Your task to perform on an android device: change keyboard looks Image 0: 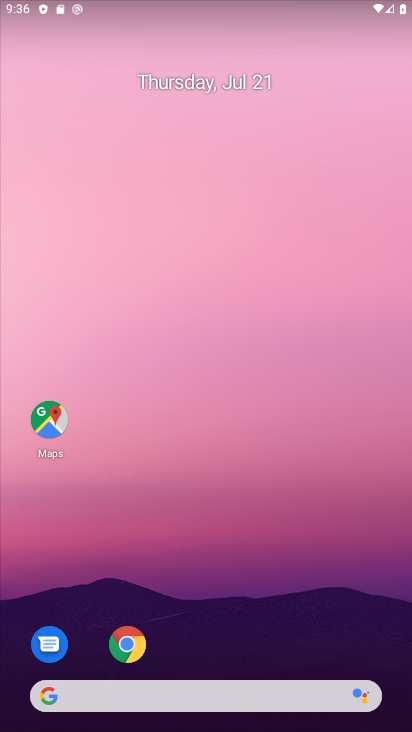
Step 0: drag from (290, 663) to (100, 72)
Your task to perform on an android device: change keyboard looks Image 1: 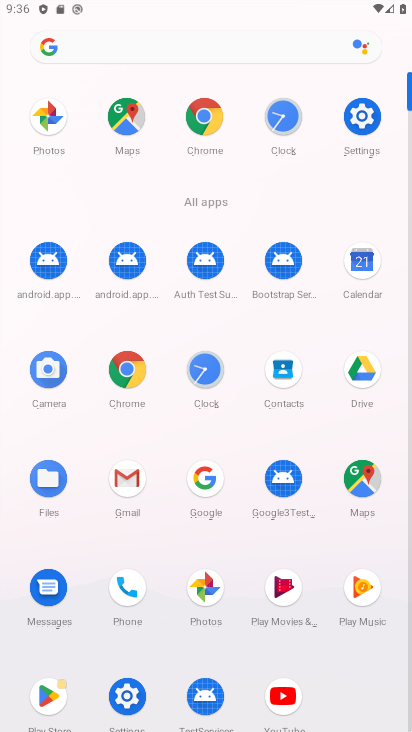
Step 1: click (375, 145)
Your task to perform on an android device: change keyboard looks Image 2: 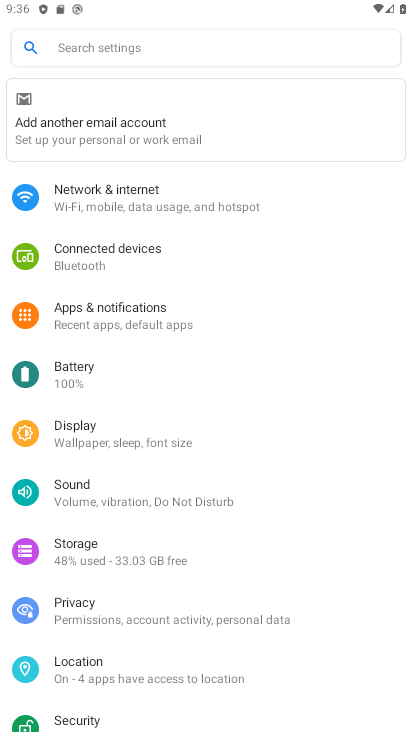
Step 2: drag from (187, 627) to (161, 58)
Your task to perform on an android device: change keyboard looks Image 3: 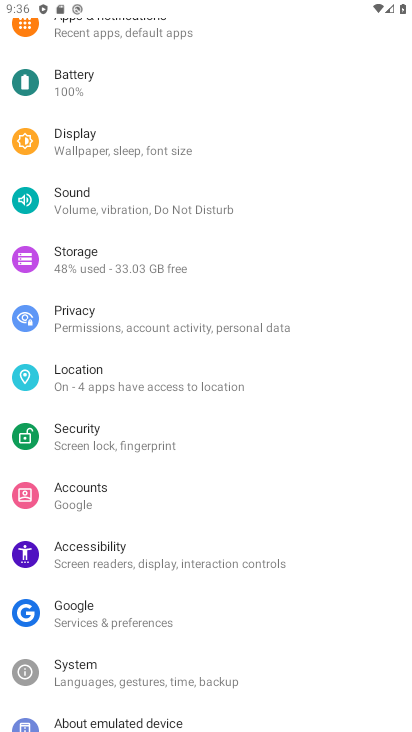
Step 3: click (233, 694)
Your task to perform on an android device: change keyboard looks Image 4: 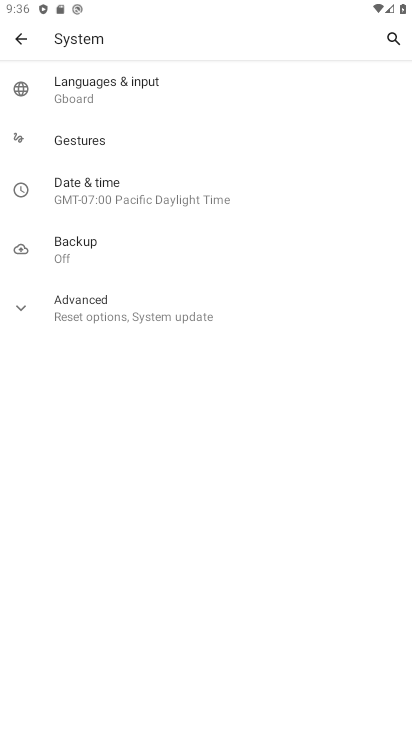
Step 4: click (193, 94)
Your task to perform on an android device: change keyboard looks Image 5: 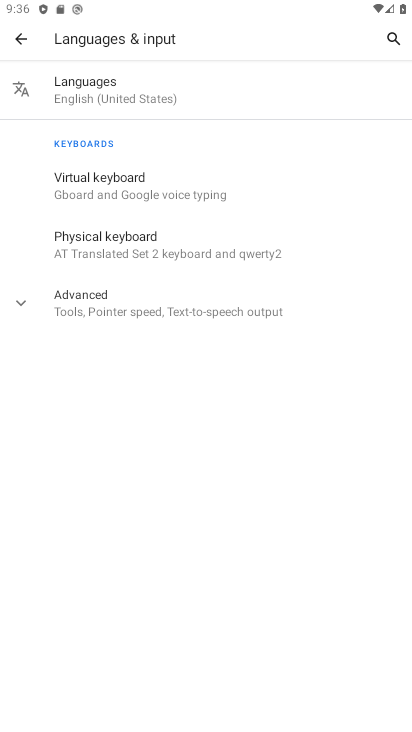
Step 5: click (179, 90)
Your task to perform on an android device: change keyboard looks Image 6: 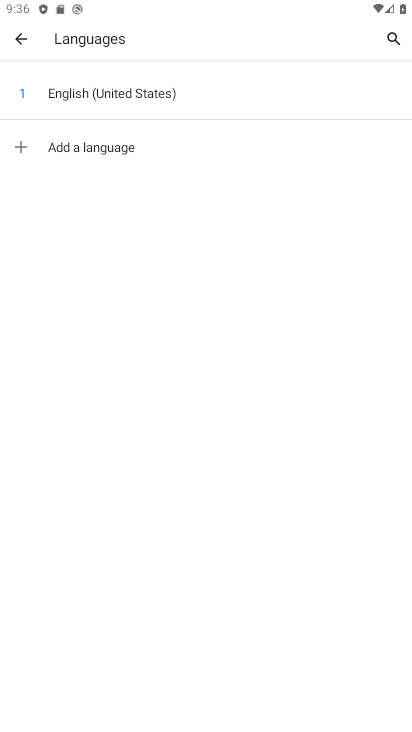
Step 6: click (198, 101)
Your task to perform on an android device: change keyboard looks Image 7: 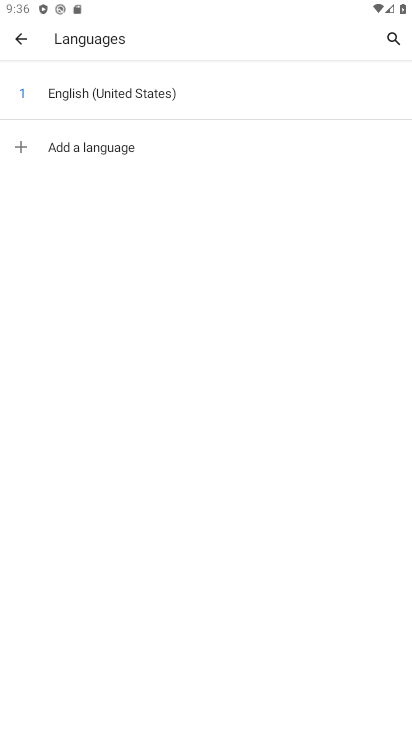
Step 7: task complete